Your task to perform on an android device: delete browsing data in the chrome app Image 0: 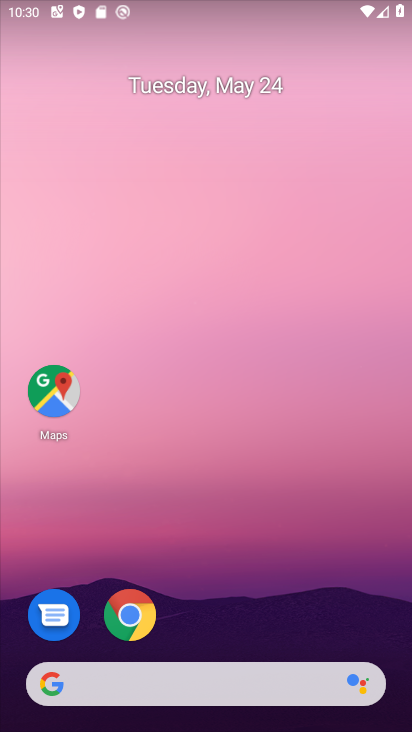
Step 0: click (138, 621)
Your task to perform on an android device: delete browsing data in the chrome app Image 1: 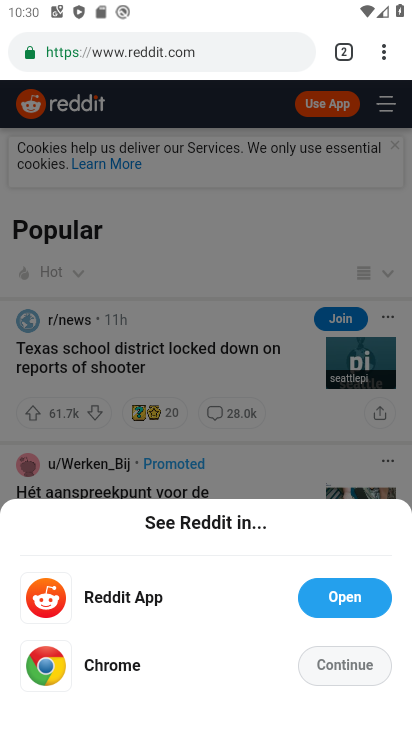
Step 1: click (394, 60)
Your task to perform on an android device: delete browsing data in the chrome app Image 2: 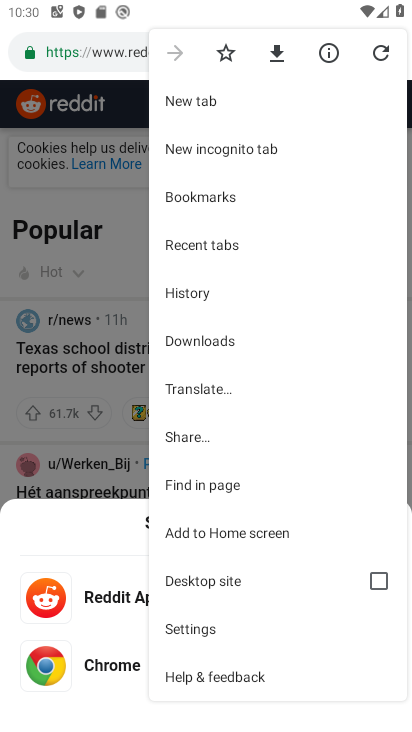
Step 2: click (192, 630)
Your task to perform on an android device: delete browsing data in the chrome app Image 3: 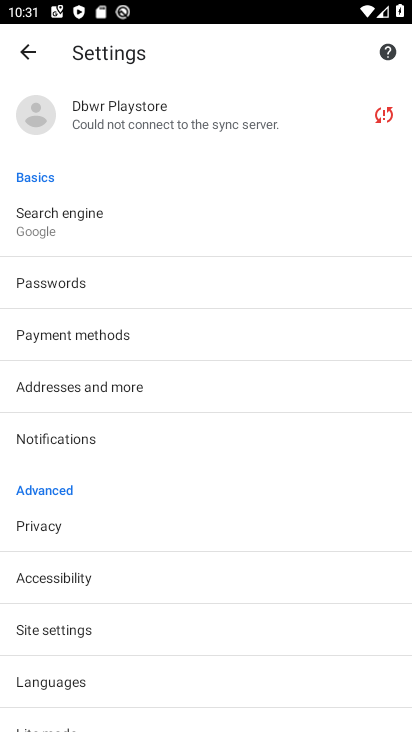
Step 3: drag from (172, 599) to (164, 266)
Your task to perform on an android device: delete browsing data in the chrome app Image 4: 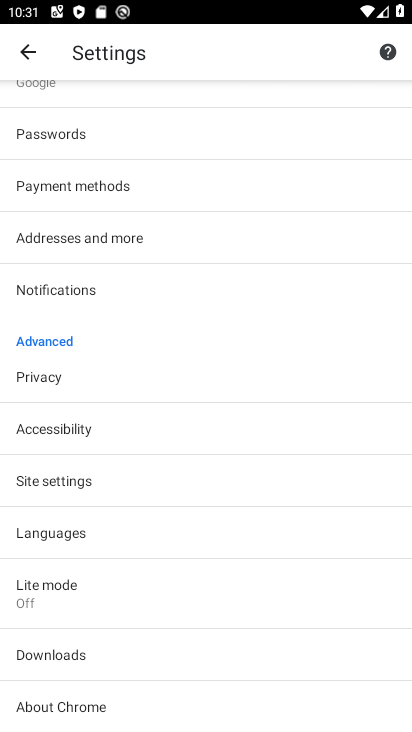
Step 4: click (110, 383)
Your task to perform on an android device: delete browsing data in the chrome app Image 5: 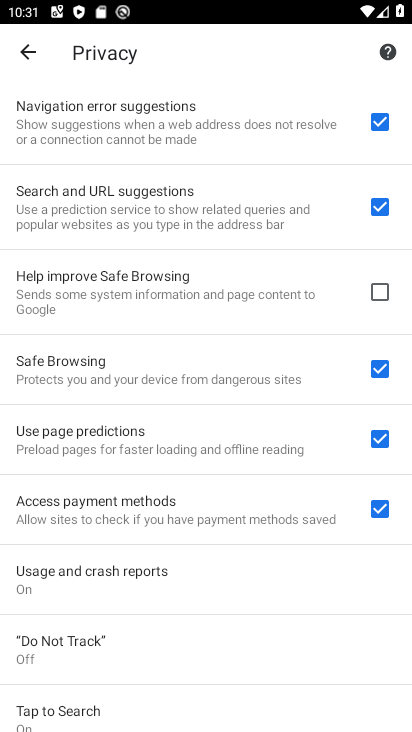
Step 5: drag from (150, 599) to (151, 265)
Your task to perform on an android device: delete browsing data in the chrome app Image 6: 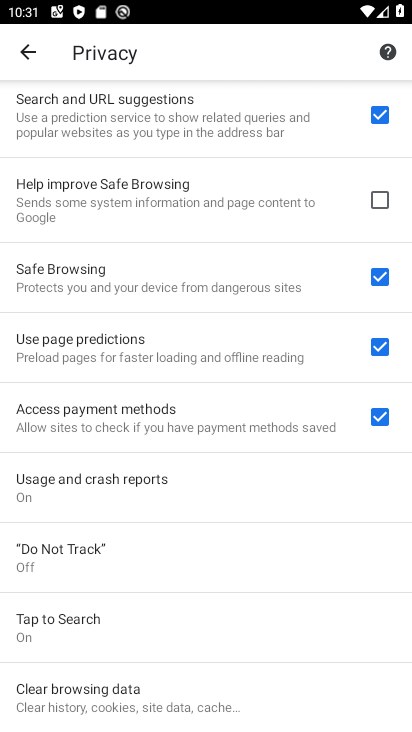
Step 6: click (126, 699)
Your task to perform on an android device: delete browsing data in the chrome app Image 7: 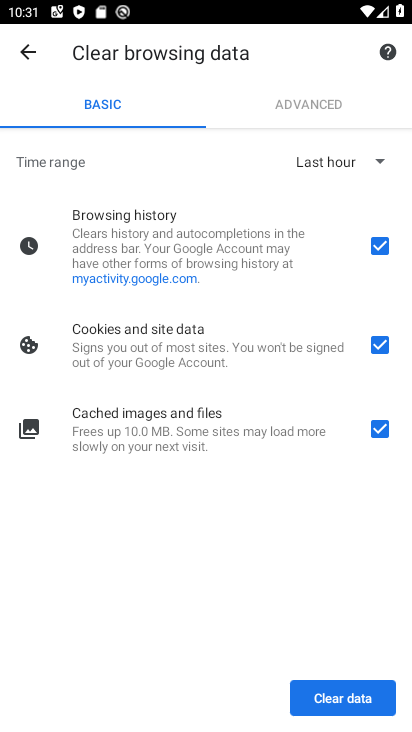
Step 7: drag from (208, 588) to (235, 233)
Your task to perform on an android device: delete browsing data in the chrome app Image 8: 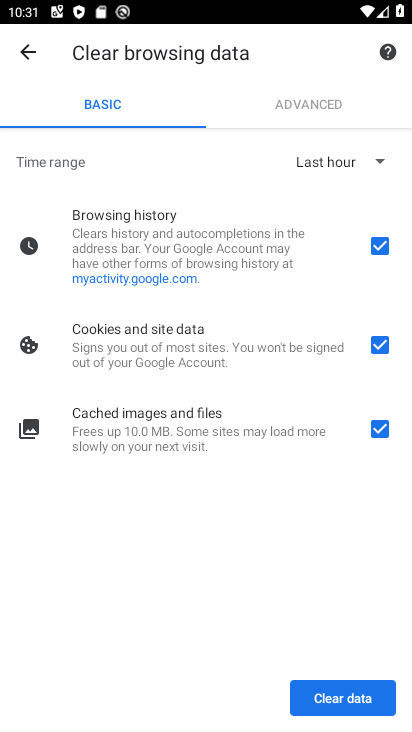
Step 8: click (374, 427)
Your task to perform on an android device: delete browsing data in the chrome app Image 9: 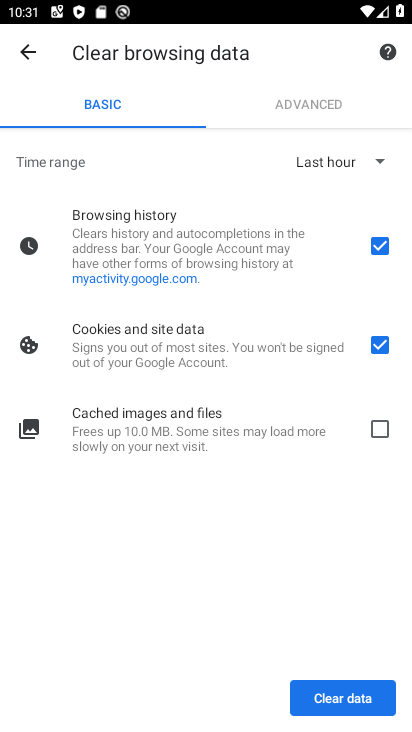
Step 9: click (373, 340)
Your task to perform on an android device: delete browsing data in the chrome app Image 10: 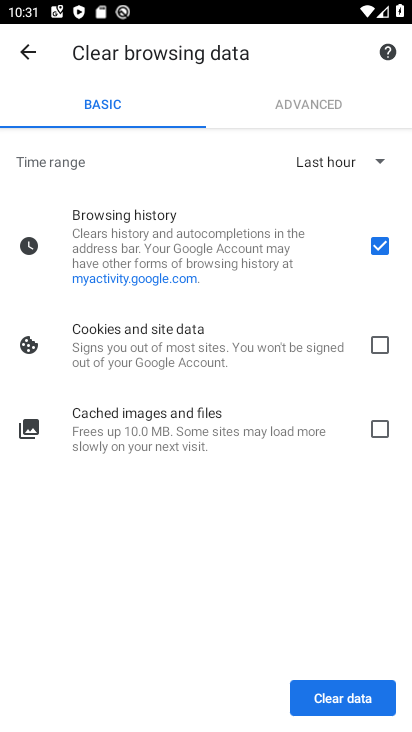
Step 10: click (319, 698)
Your task to perform on an android device: delete browsing data in the chrome app Image 11: 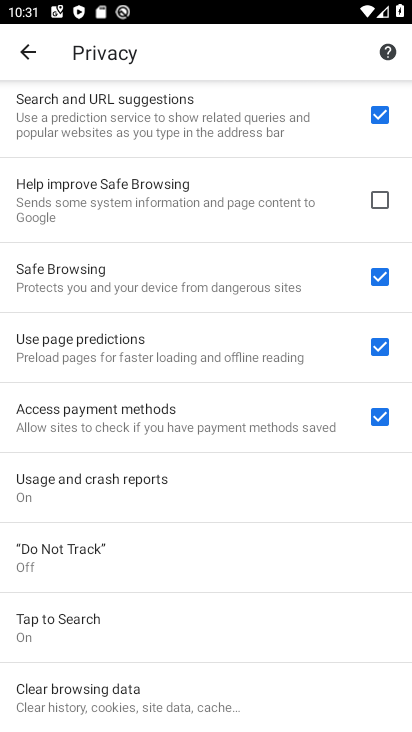
Step 11: task complete